Your task to perform on an android device: Is it going to rain today? Image 0: 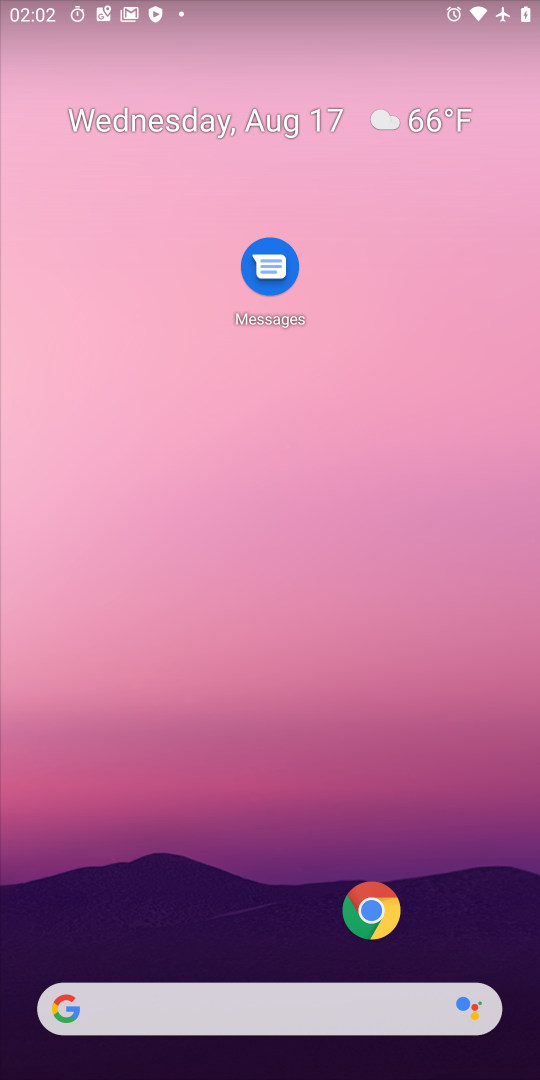
Step 0: click (440, 118)
Your task to perform on an android device: Is it going to rain today? Image 1: 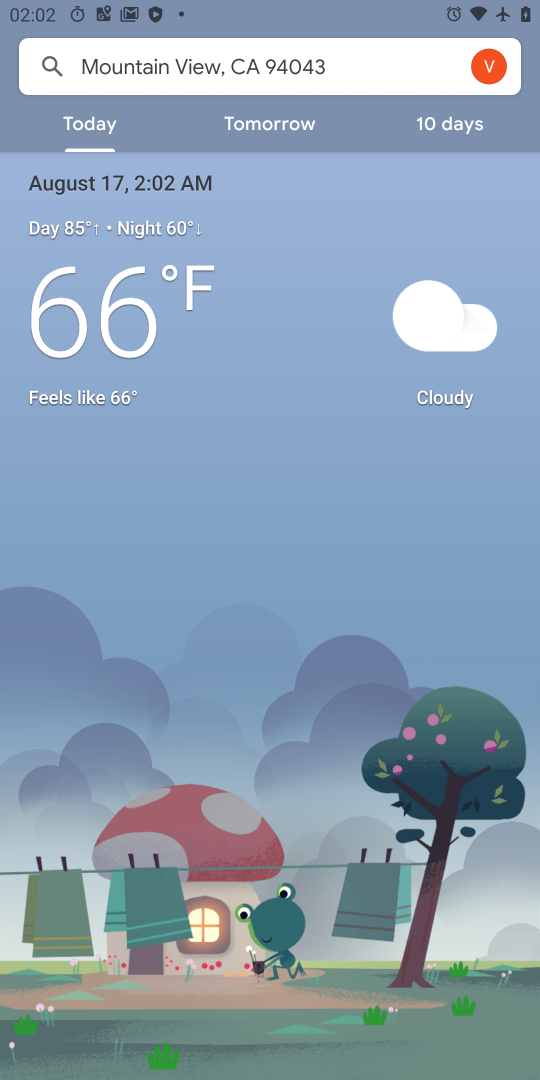
Step 1: task complete